Your task to perform on an android device: Show the shopping cart on bestbuy.com. Image 0: 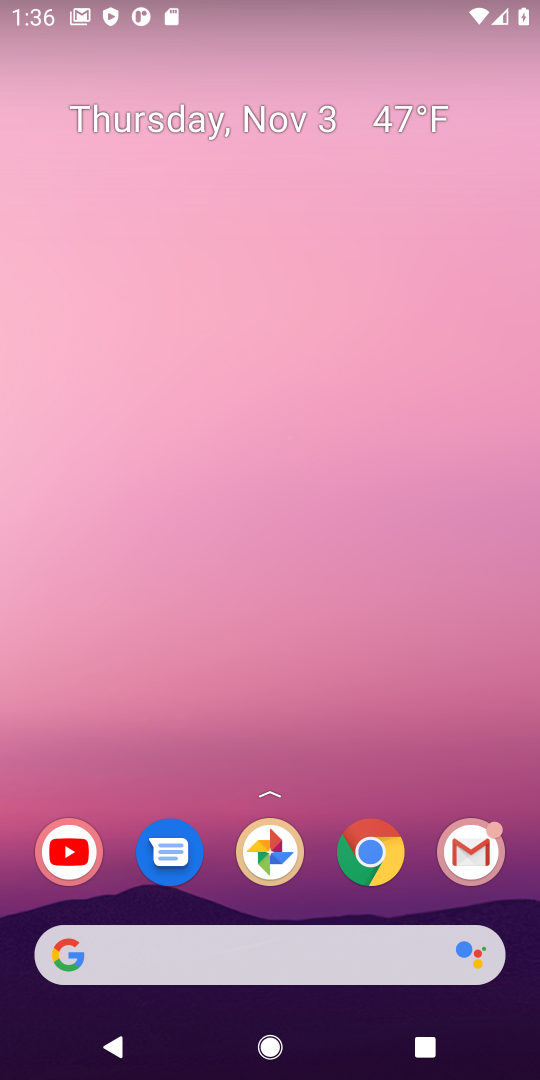
Step 0: click (374, 855)
Your task to perform on an android device: Show the shopping cart on bestbuy.com. Image 1: 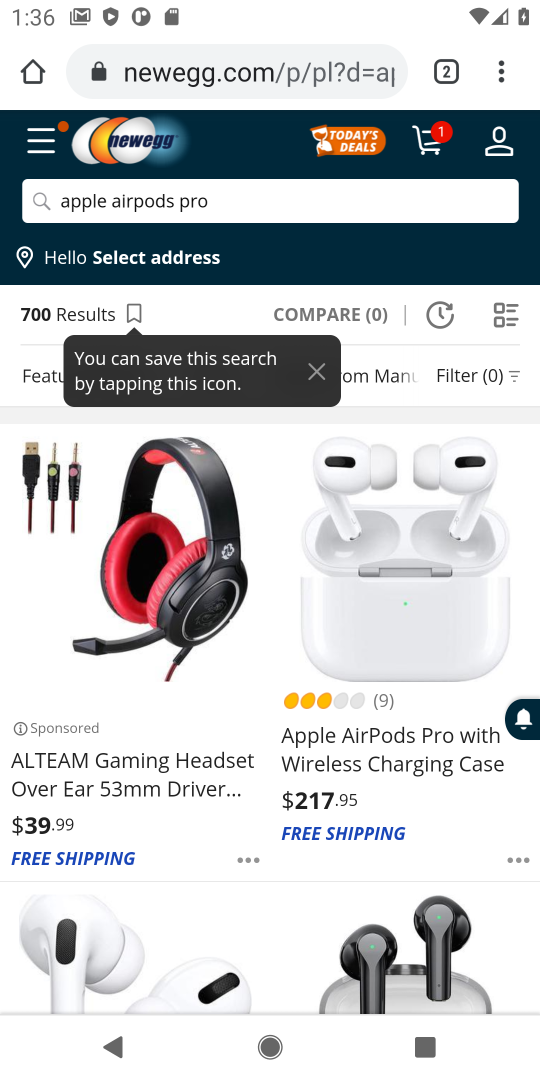
Step 1: click (259, 73)
Your task to perform on an android device: Show the shopping cart on bestbuy.com. Image 2: 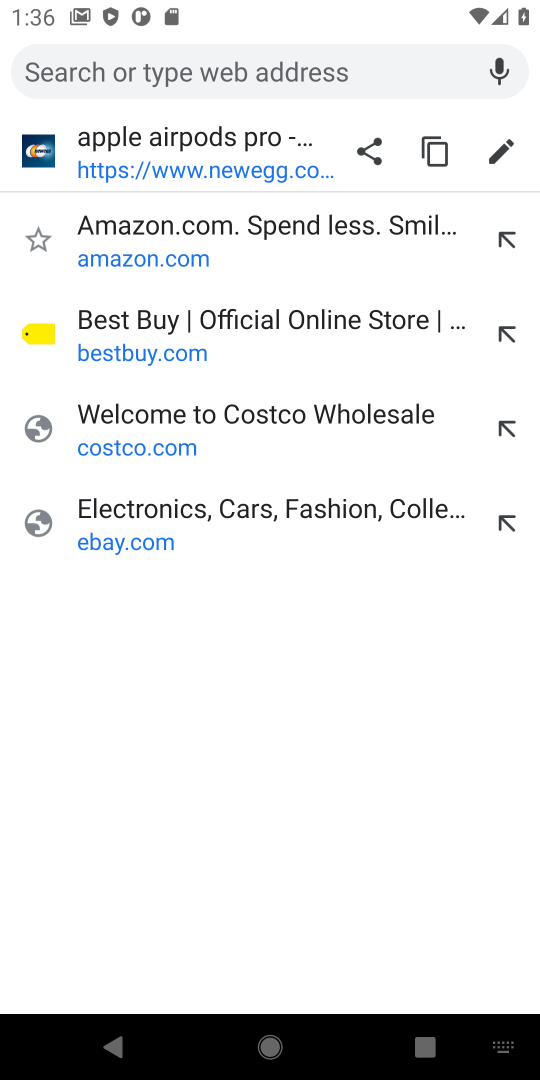
Step 2: click (127, 356)
Your task to perform on an android device: Show the shopping cart on bestbuy.com. Image 3: 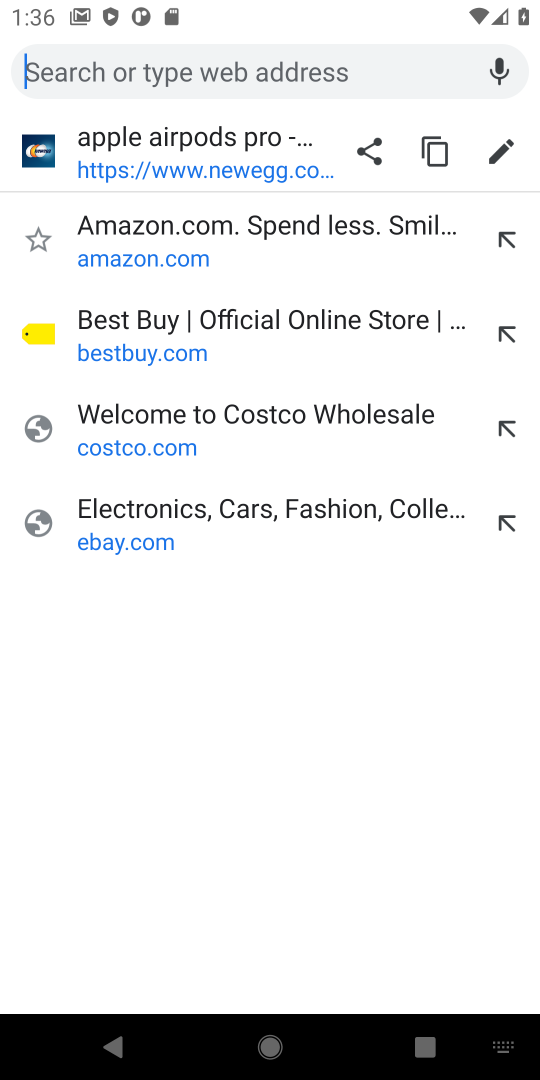
Step 3: click (113, 351)
Your task to perform on an android device: Show the shopping cart on bestbuy.com. Image 4: 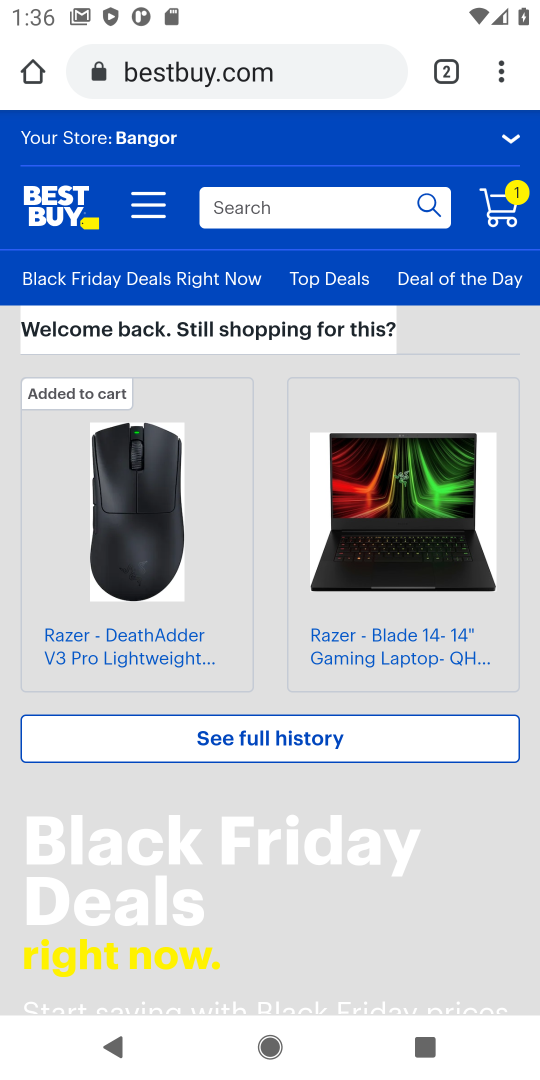
Step 4: click (487, 204)
Your task to perform on an android device: Show the shopping cart on bestbuy.com. Image 5: 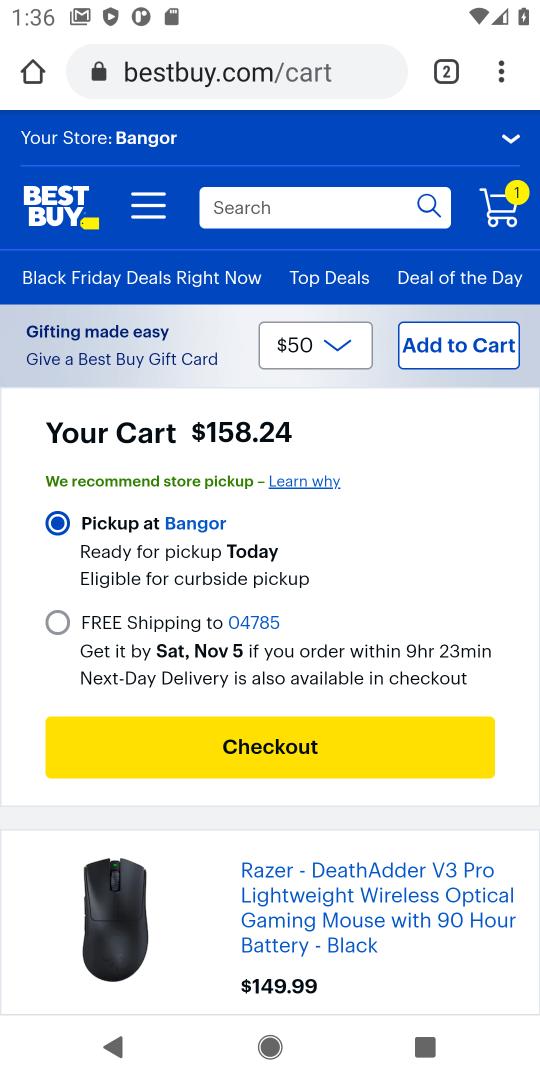
Step 5: task complete